Your task to perform on an android device: Go to Reddit.com Image 0: 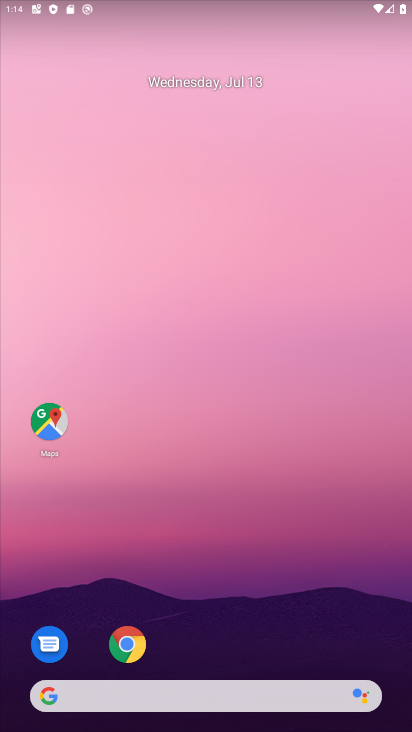
Step 0: click (212, 691)
Your task to perform on an android device: Go to Reddit.com Image 1: 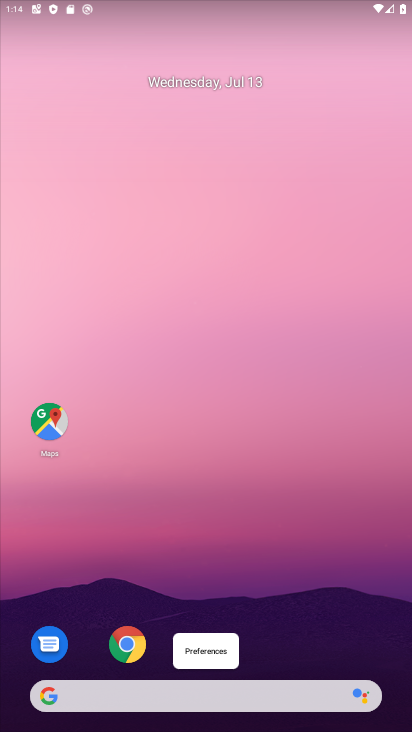
Step 1: type "Go to Reddit.com"
Your task to perform on an android device: Go to Reddit.com Image 2: 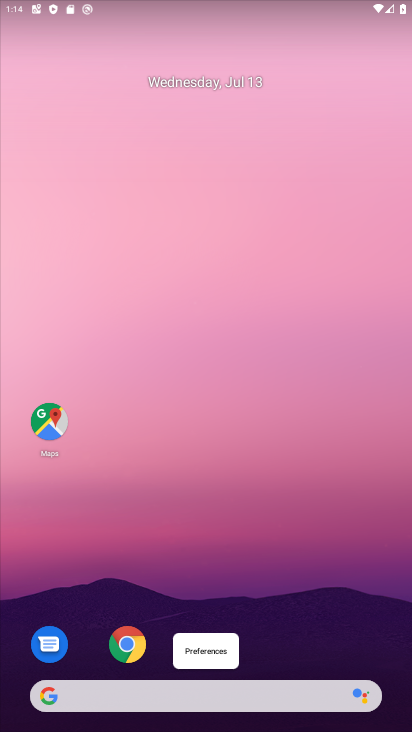
Step 2: click (174, 689)
Your task to perform on an android device: Go to Reddit.com Image 3: 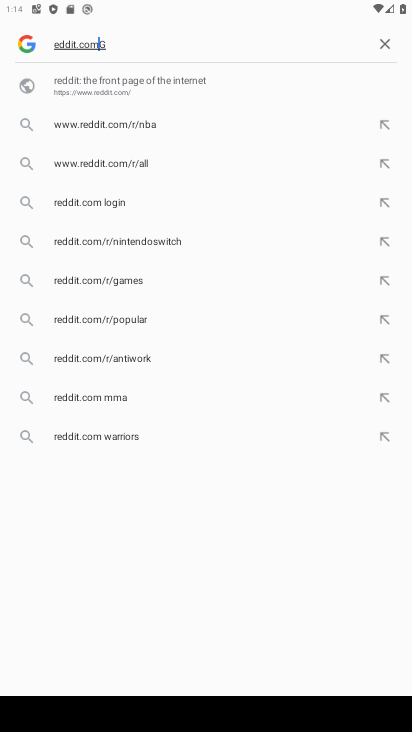
Step 3: type "Go to Reddit.com"
Your task to perform on an android device: Go to Reddit.com Image 4: 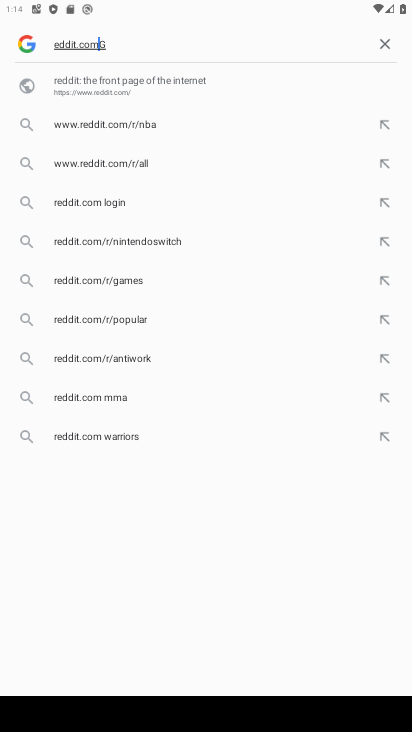
Step 4: click (378, 45)
Your task to perform on an android device: Go to Reddit.com Image 5: 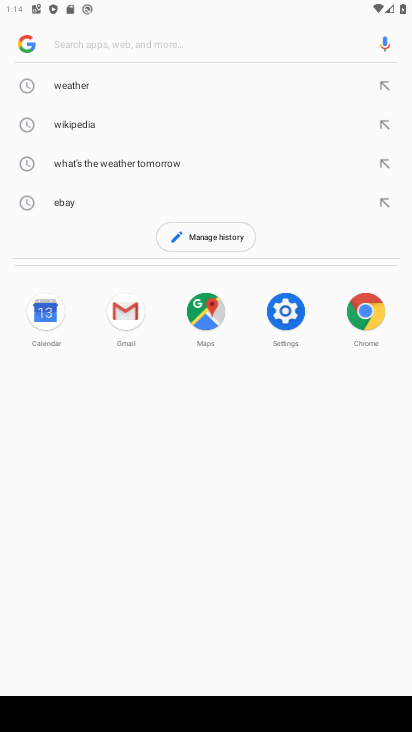
Step 5: type " Reddit.com"
Your task to perform on an android device: Go to Reddit.com Image 6: 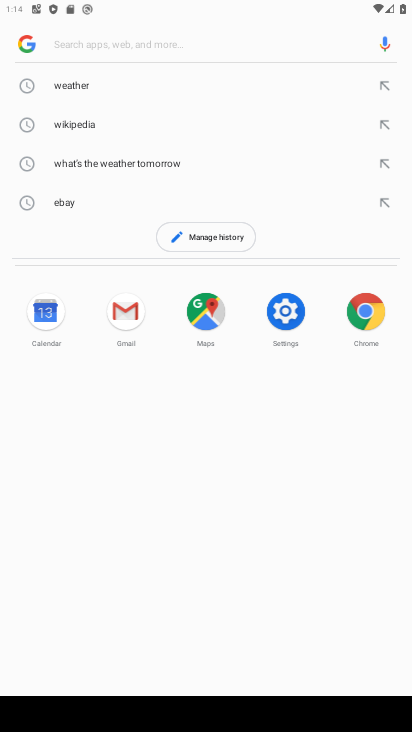
Step 6: click (87, 45)
Your task to perform on an android device: Go to Reddit.com Image 7: 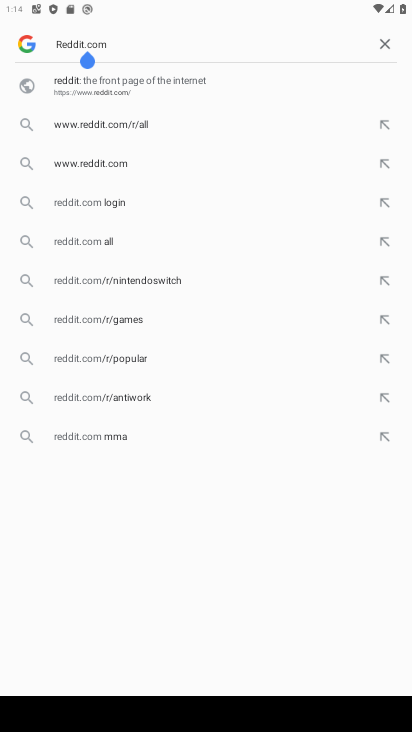
Step 7: click (93, 159)
Your task to perform on an android device: Go to Reddit.com Image 8: 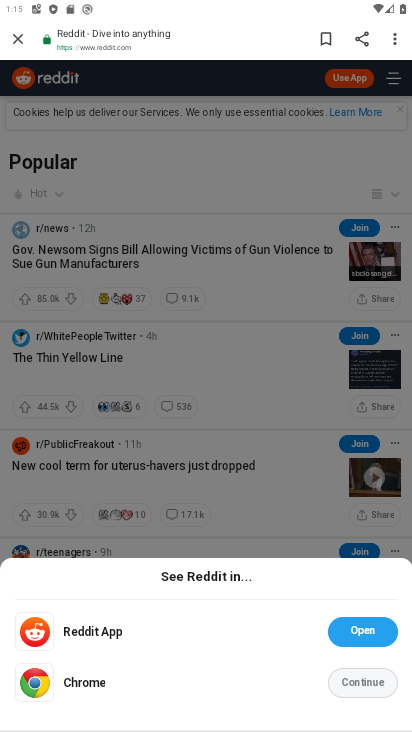
Step 8: task complete